Your task to perform on an android device: When is my next appointment? Image 0: 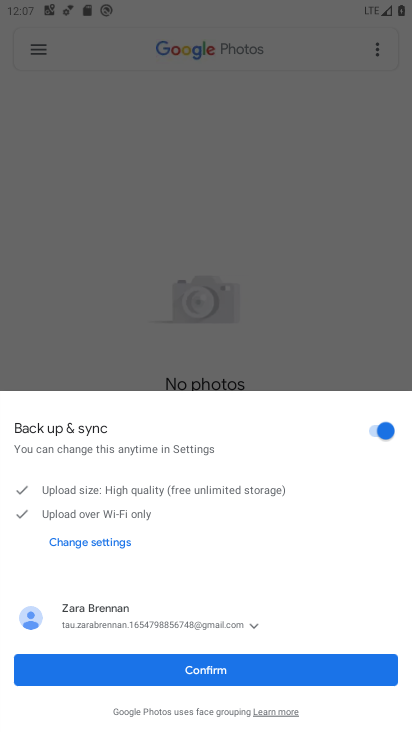
Step 0: press home button
Your task to perform on an android device: When is my next appointment? Image 1: 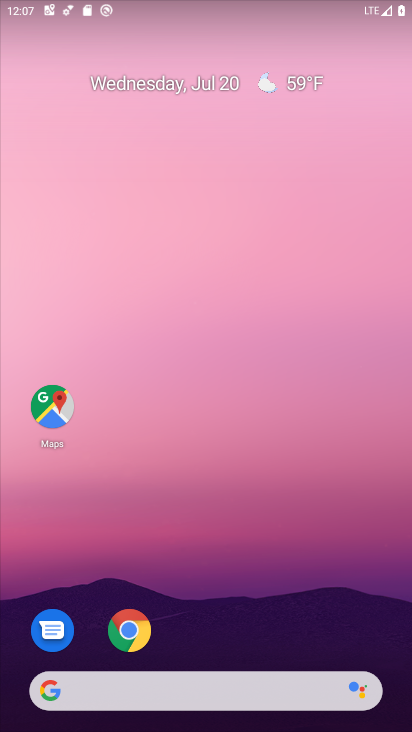
Step 1: drag from (379, 648) to (341, 201)
Your task to perform on an android device: When is my next appointment? Image 2: 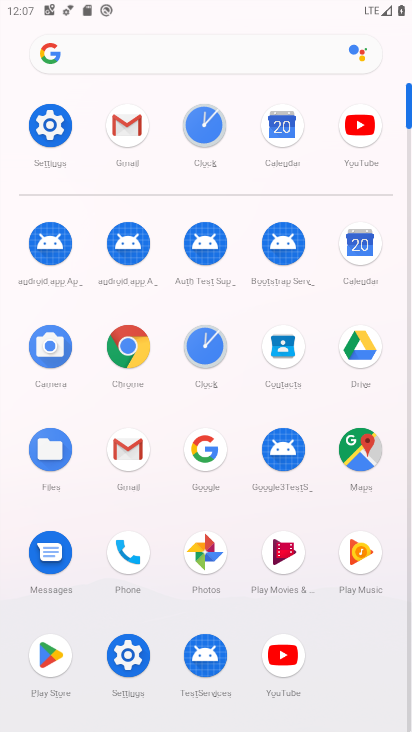
Step 2: click (358, 242)
Your task to perform on an android device: When is my next appointment? Image 3: 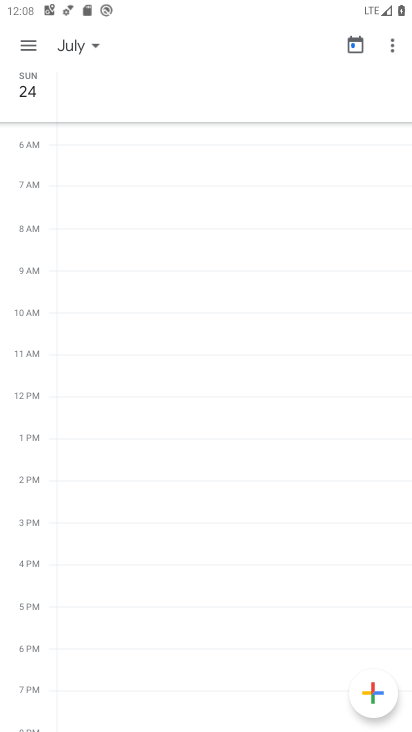
Step 3: click (28, 42)
Your task to perform on an android device: When is my next appointment? Image 4: 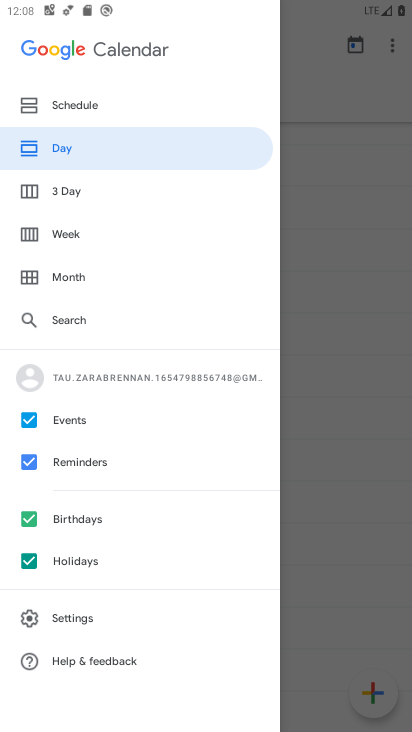
Step 4: click (74, 104)
Your task to perform on an android device: When is my next appointment? Image 5: 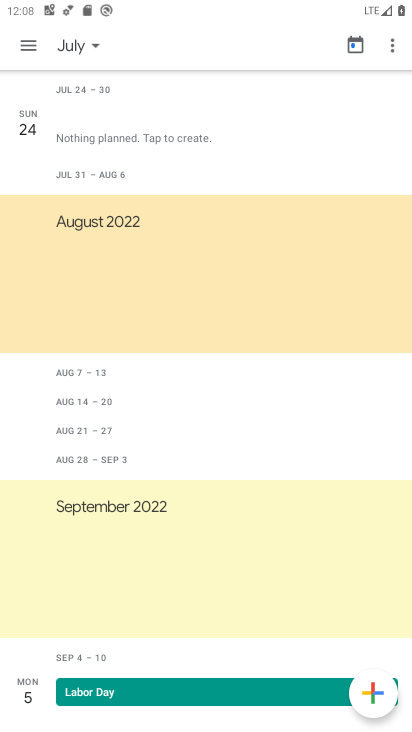
Step 5: task complete